Your task to perform on an android device: delete a single message in the gmail app Image 0: 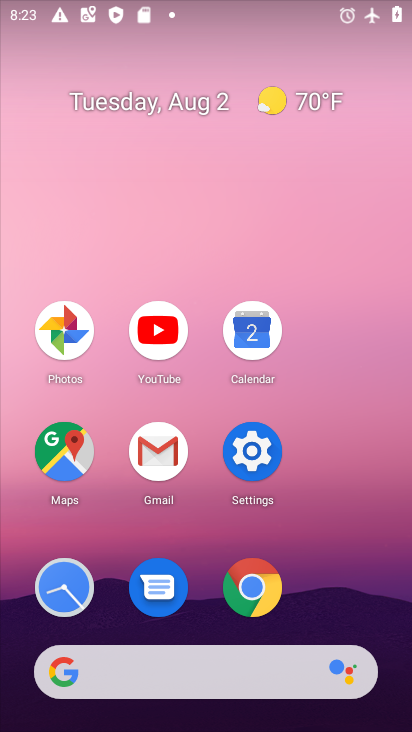
Step 0: click (158, 452)
Your task to perform on an android device: delete a single message in the gmail app Image 1: 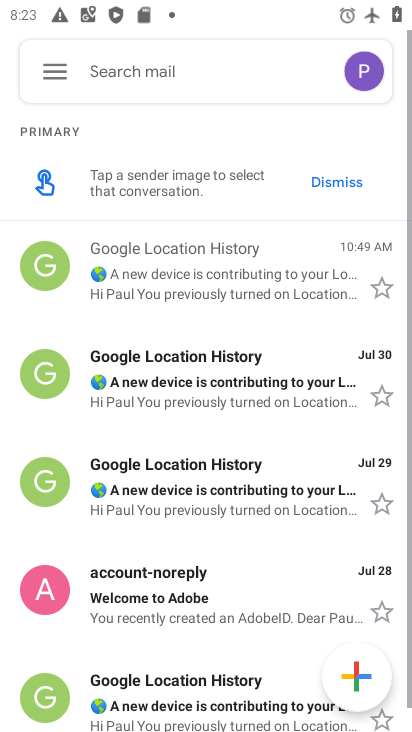
Step 1: click (200, 254)
Your task to perform on an android device: delete a single message in the gmail app Image 2: 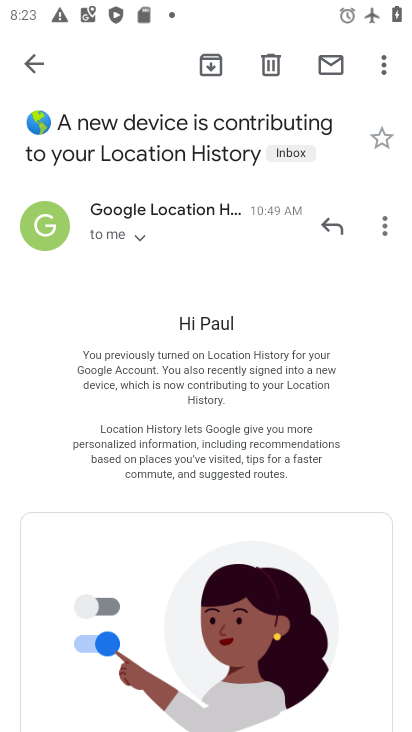
Step 2: click (271, 60)
Your task to perform on an android device: delete a single message in the gmail app Image 3: 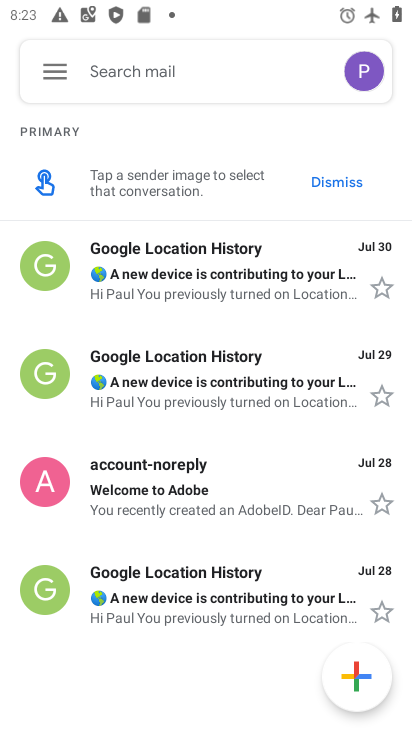
Step 3: task complete